Your task to perform on an android device: turn off picture-in-picture Image 0: 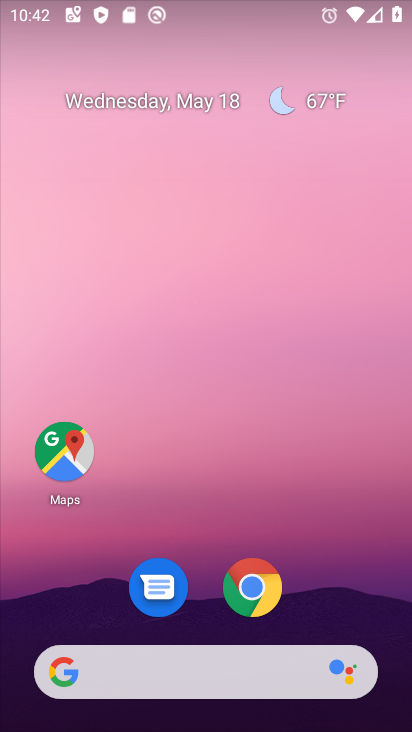
Step 0: drag from (230, 533) to (203, 37)
Your task to perform on an android device: turn off picture-in-picture Image 1: 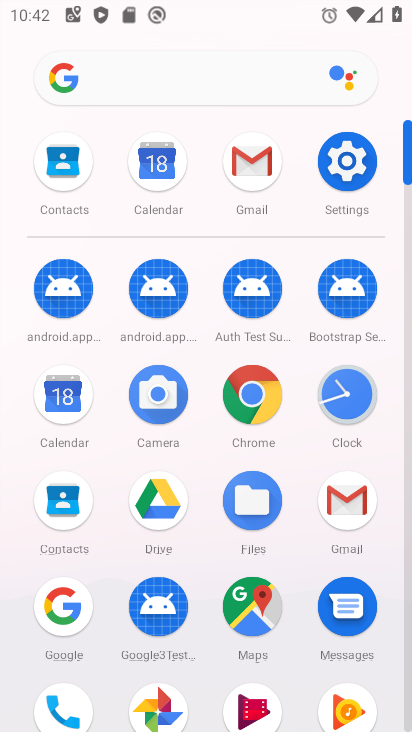
Step 1: click (342, 166)
Your task to perform on an android device: turn off picture-in-picture Image 2: 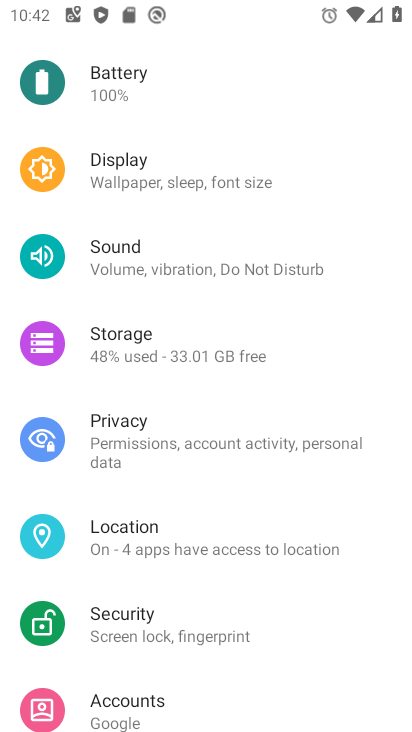
Step 2: drag from (226, 148) to (243, 525)
Your task to perform on an android device: turn off picture-in-picture Image 3: 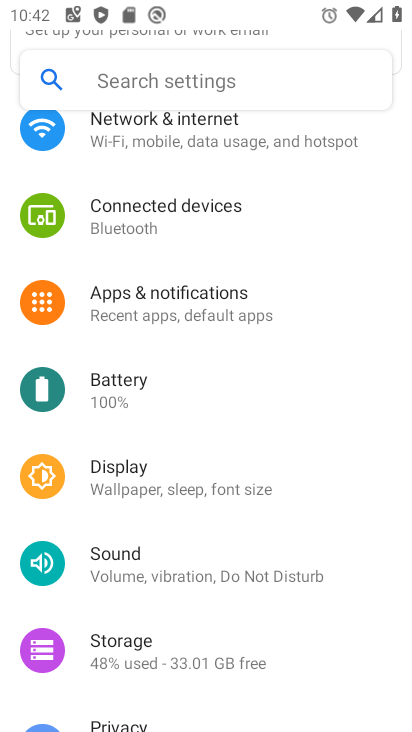
Step 3: click (202, 318)
Your task to perform on an android device: turn off picture-in-picture Image 4: 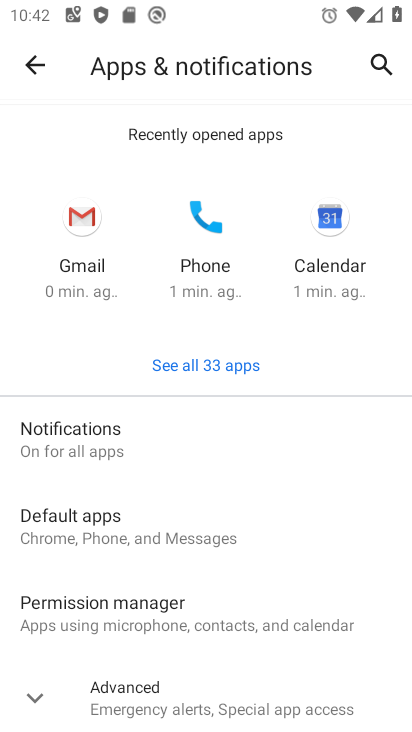
Step 4: drag from (236, 655) to (206, 459)
Your task to perform on an android device: turn off picture-in-picture Image 5: 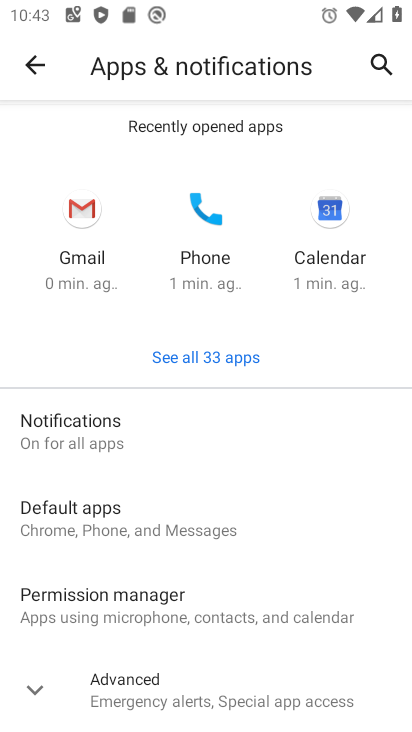
Step 5: click (245, 677)
Your task to perform on an android device: turn off picture-in-picture Image 6: 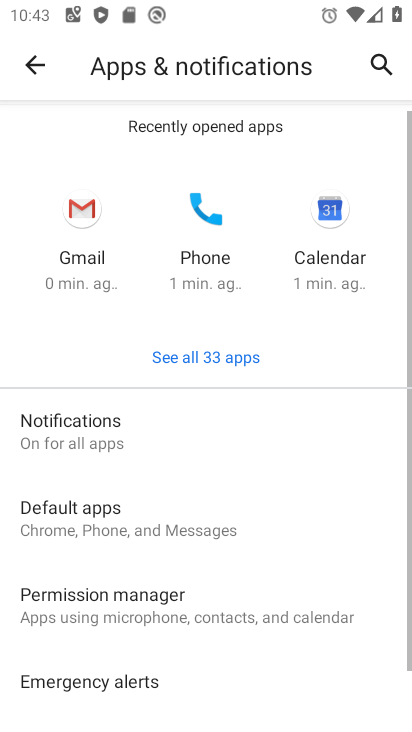
Step 6: drag from (235, 667) to (219, 317)
Your task to perform on an android device: turn off picture-in-picture Image 7: 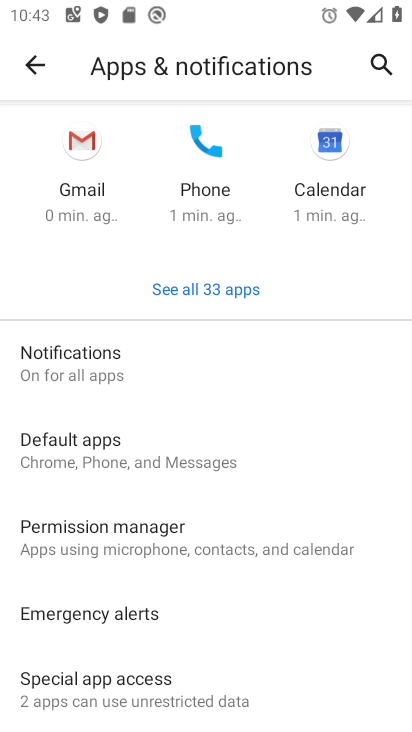
Step 7: click (213, 692)
Your task to perform on an android device: turn off picture-in-picture Image 8: 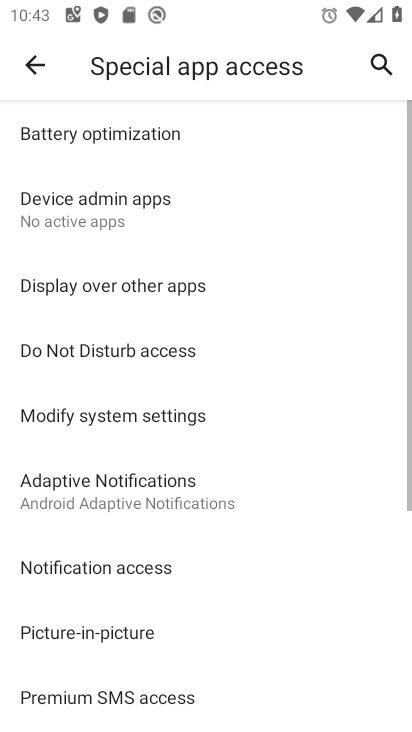
Step 8: drag from (255, 666) to (238, 462)
Your task to perform on an android device: turn off picture-in-picture Image 9: 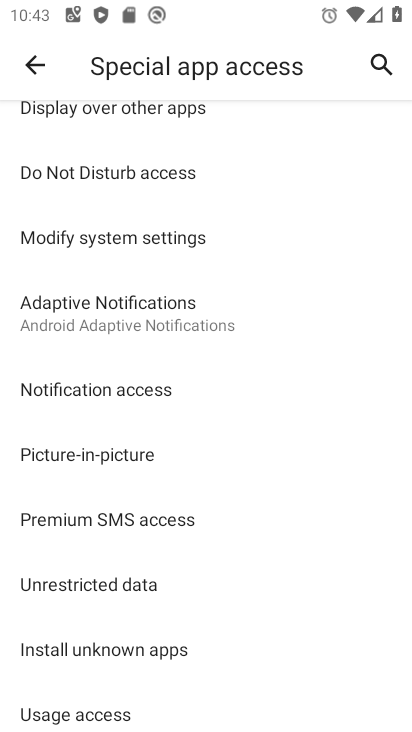
Step 9: click (119, 459)
Your task to perform on an android device: turn off picture-in-picture Image 10: 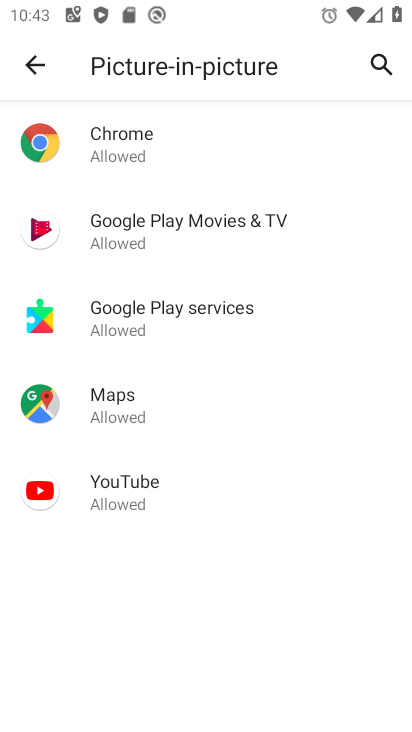
Step 10: click (109, 169)
Your task to perform on an android device: turn off picture-in-picture Image 11: 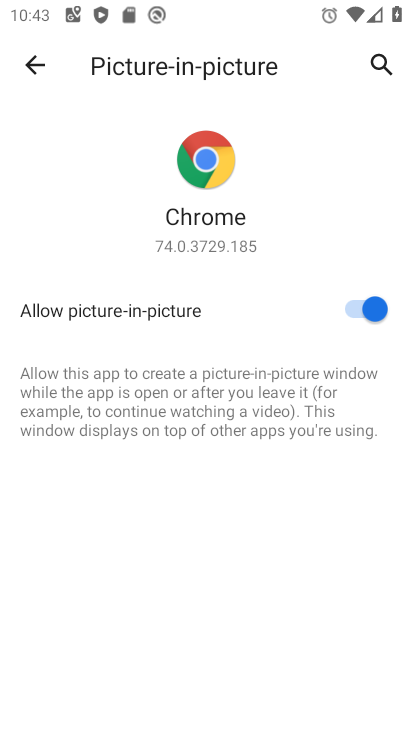
Step 11: click (355, 305)
Your task to perform on an android device: turn off picture-in-picture Image 12: 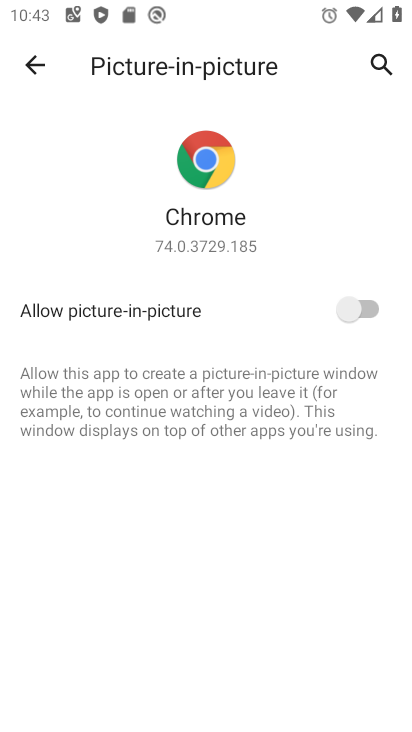
Step 12: click (41, 71)
Your task to perform on an android device: turn off picture-in-picture Image 13: 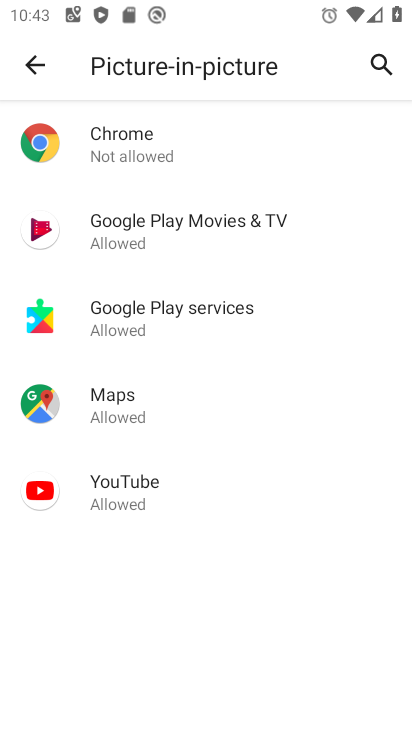
Step 13: click (229, 227)
Your task to perform on an android device: turn off picture-in-picture Image 14: 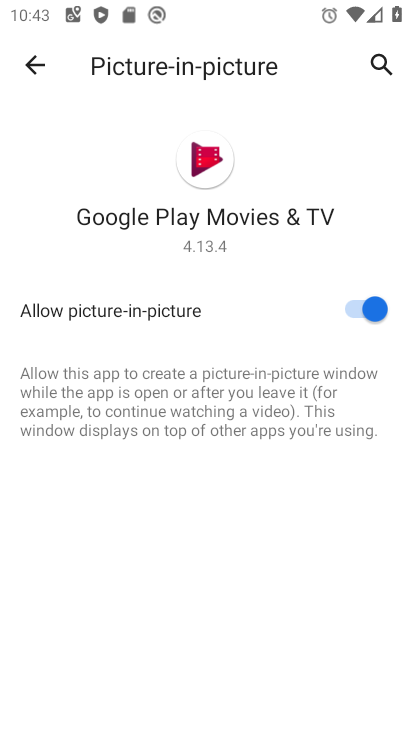
Step 14: click (354, 299)
Your task to perform on an android device: turn off picture-in-picture Image 15: 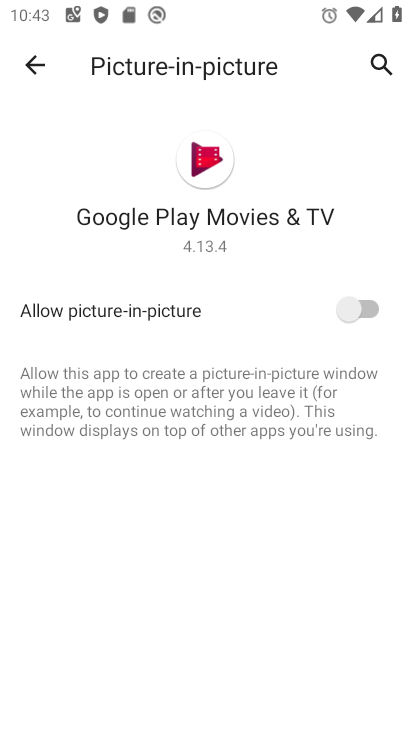
Step 15: click (26, 56)
Your task to perform on an android device: turn off picture-in-picture Image 16: 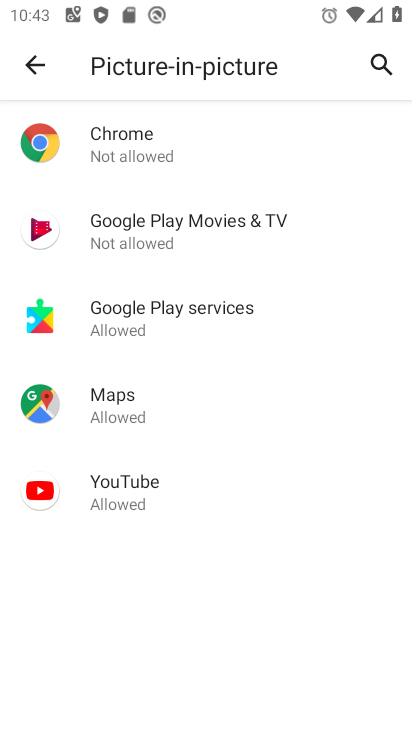
Step 16: click (168, 331)
Your task to perform on an android device: turn off picture-in-picture Image 17: 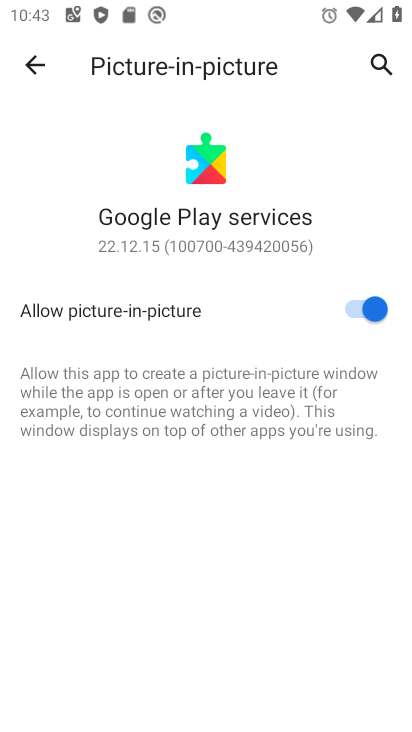
Step 17: click (352, 308)
Your task to perform on an android device: turn off picture-in-picture Image 18: 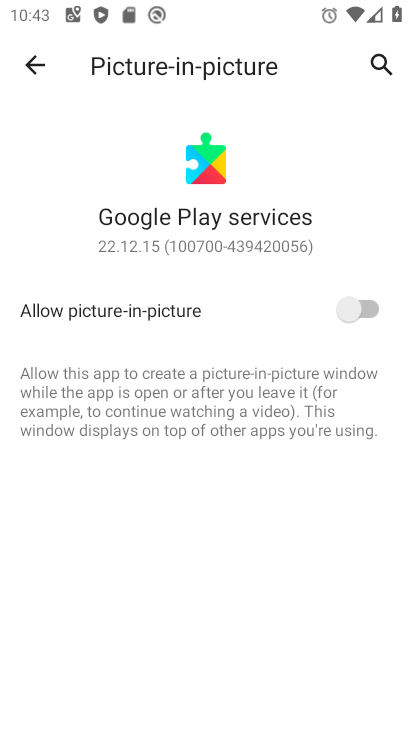
Step 18: click (35, 71)
Your task to perform on an android device: turn off picture-in-picture Image 19: 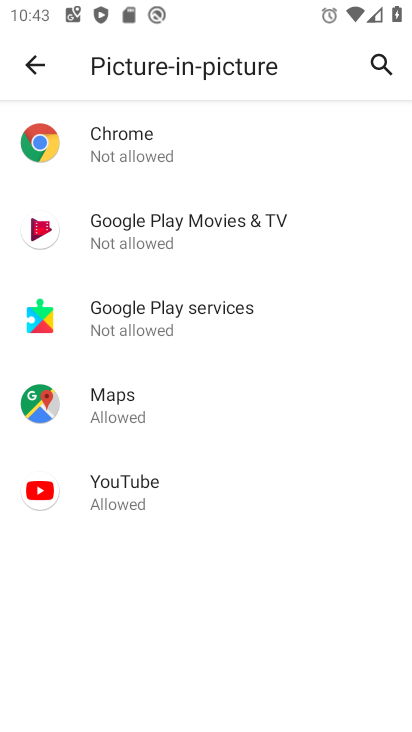
Step 19: click (147, 401)
Your task to perform on an android device: turn off picture-in-picture Image 20: 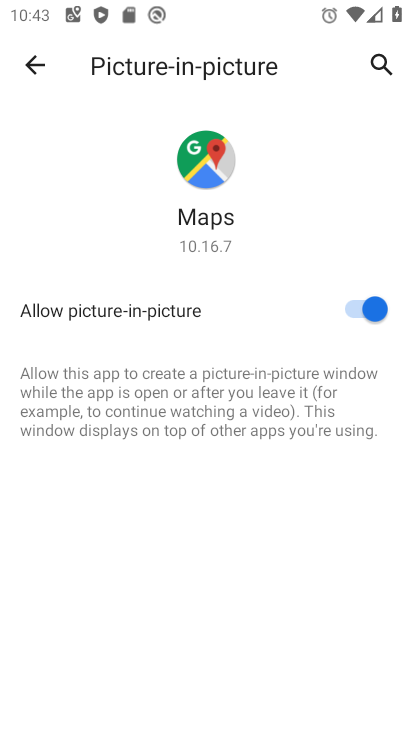
Step 20: click (356, 302)
Your task to perform on an android device: turn off picture-in-picture Image 21: 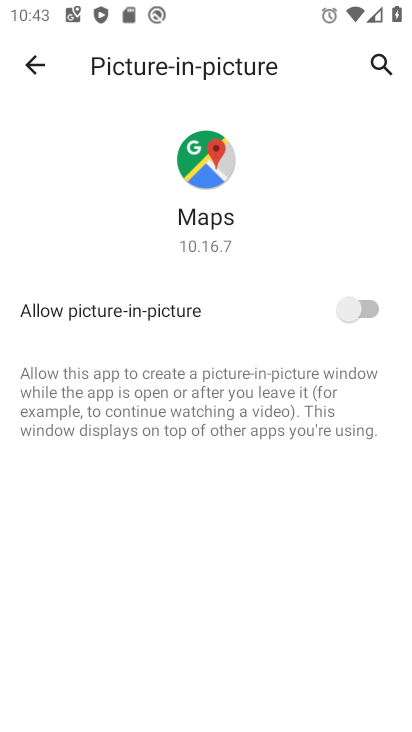
Step 21: click (36, 63)
Your task to perform on an android device: turn off picture-in-picture Image 22: 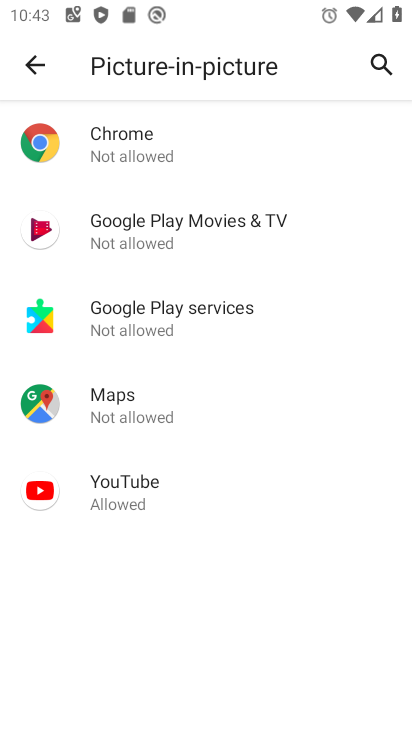
Step 22: click (125, 502)
Your task to perform on an android device: turn off picture-in-picture Image 23: 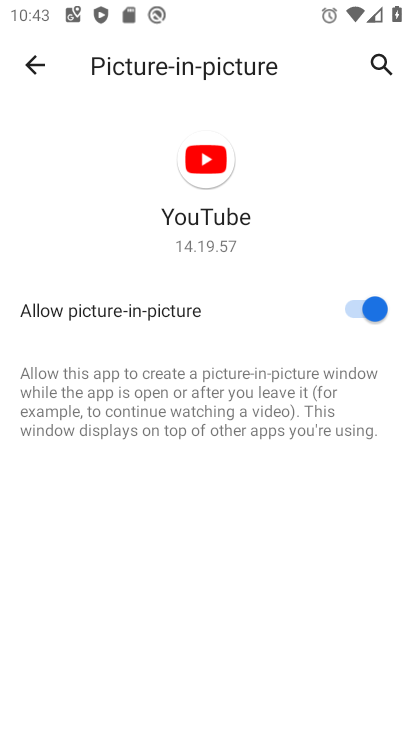
Step 23: click (354, 303)
Your task to perform on an android device: turn off picture-in-picture Image 24: 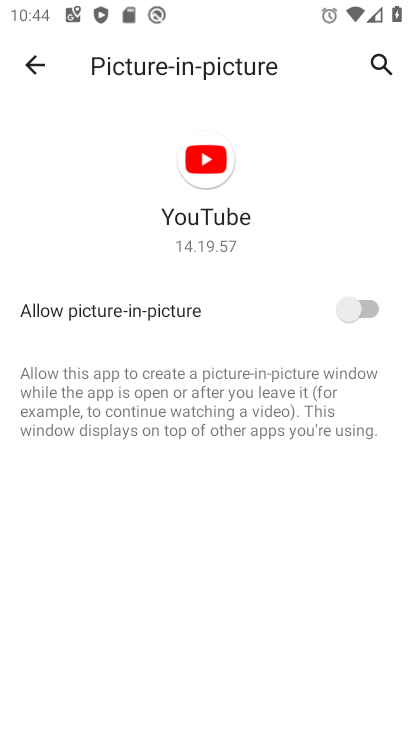
Step 24: task complete